Your task to perform on an android device: change the clock display to show seconds Image 0: 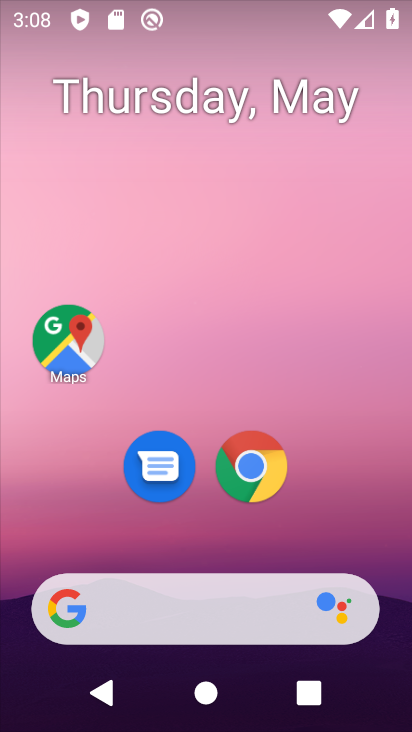
Step 0: drag from (392, 572) to (361, 243)
Your task to perform on an android device: change the clock display to show seconds Image 1: 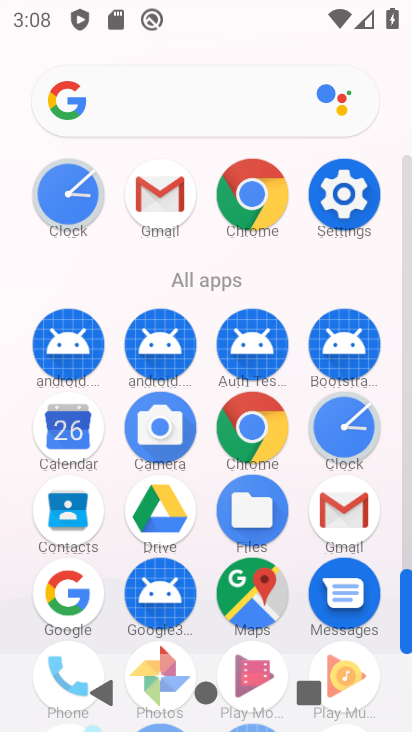
Step 1: click (356, 428)
Your task to perform on an android device: change the clock display to show seconds Image 2: 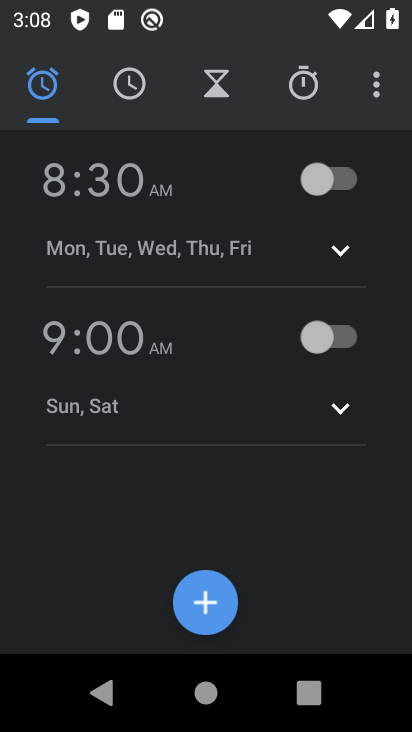
Step 2: click (373, 108)
Your task to perform on an android device: change the clock display to show seconds Image 3: 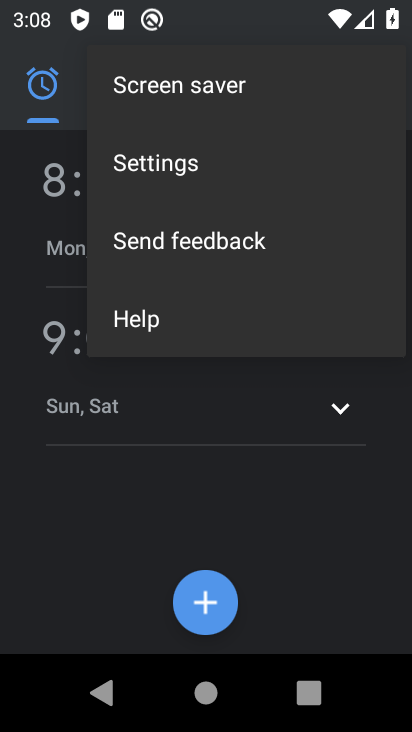
Step 3: click (325, 157)
Your task to perform on an android device: change the clock display to show seconds Image 4: 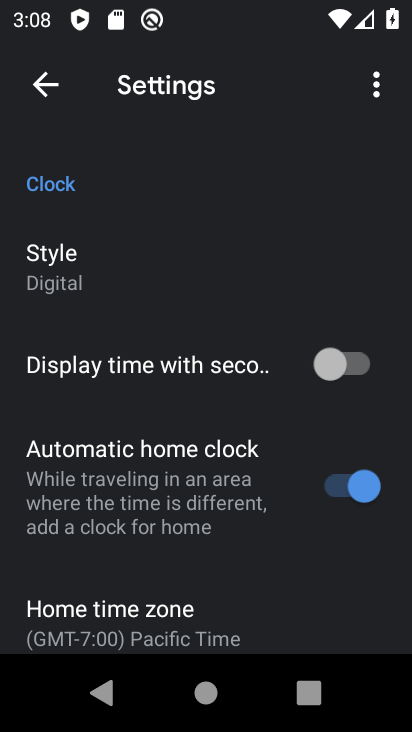
Step 4: click (359, 380)
Your task to perform on an android device: change the clock display to show seconds Image 5: 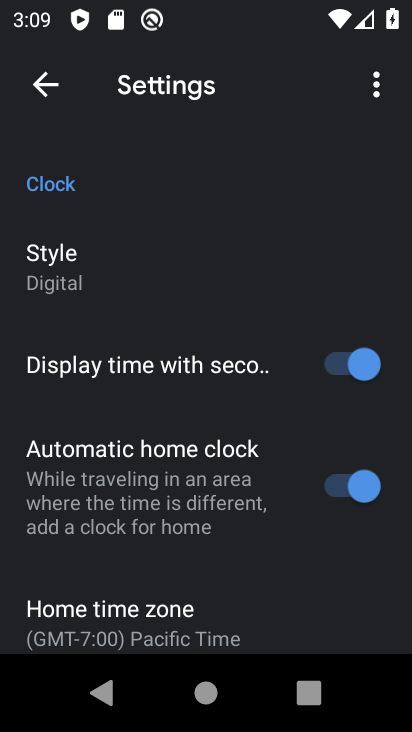
Step 5: task complete